Your task to perform on an android device: turn off improve location accuracy Image 0: 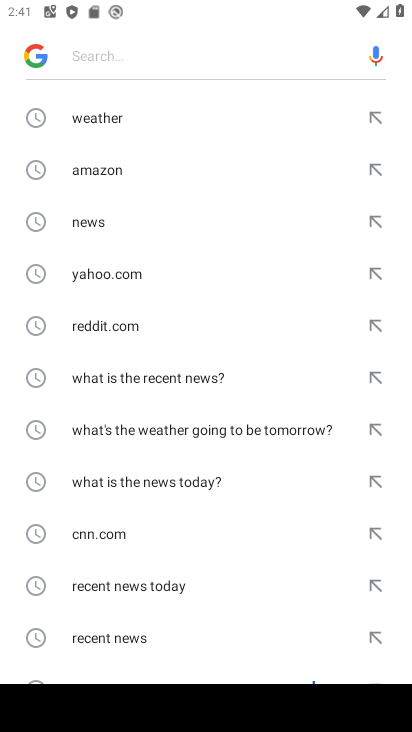
Step 0: press home button
Your task to perform on an android device: turn off improve location accuracy Image 1: 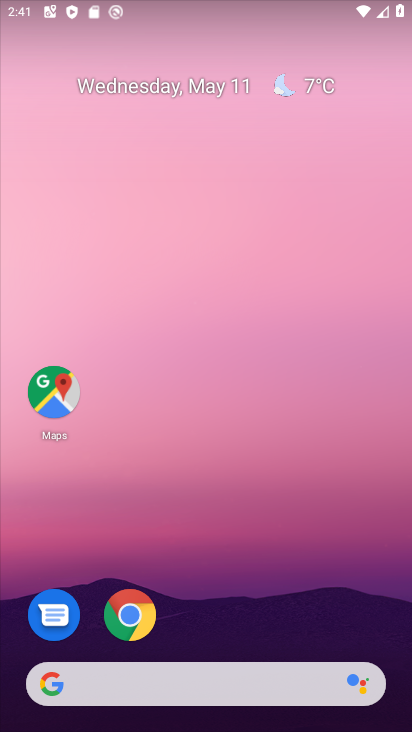
Step 1: drag from (270, 539) to (299, 89)
Your task to perform on an android device: turn off improve location accuracy Image 2: 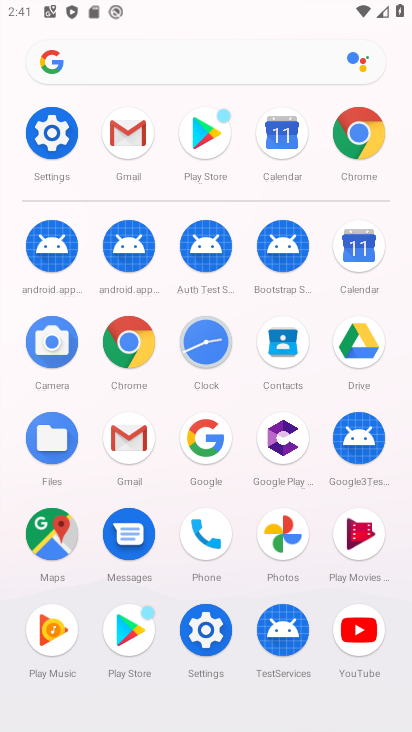
Step 2: click (34, 112)
Your task to perform on an android device: turn off improve location accuracy Image 3: 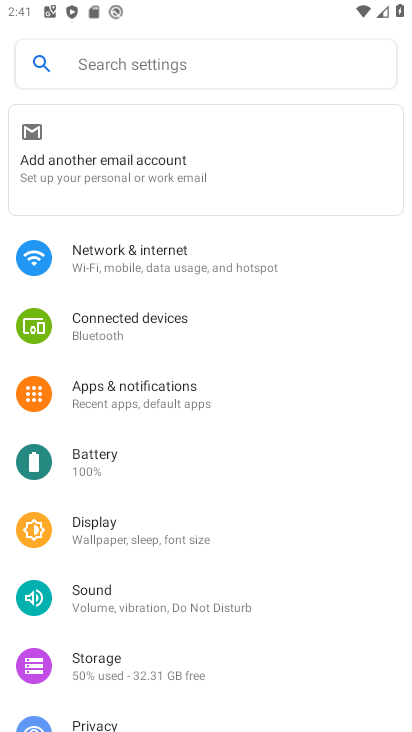
Step 3: drag from (118, 645) to (234, 225)
Your task to perform on an android device: turn off improve location accuracy Image 4: 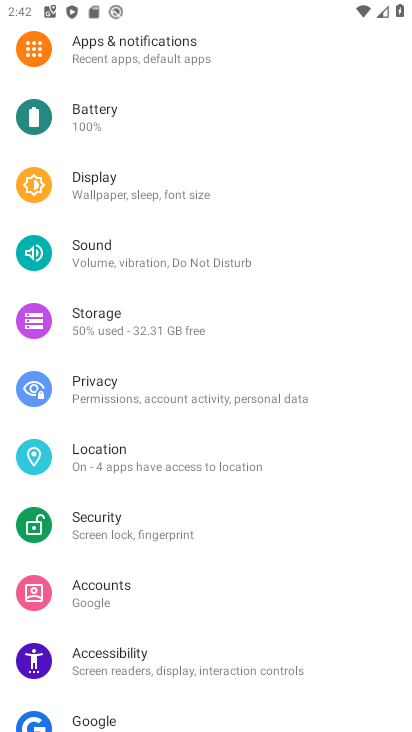
Step 4: click (79, 453)
Your task to perform on an android device: turn off improve location accuracy Image 5: 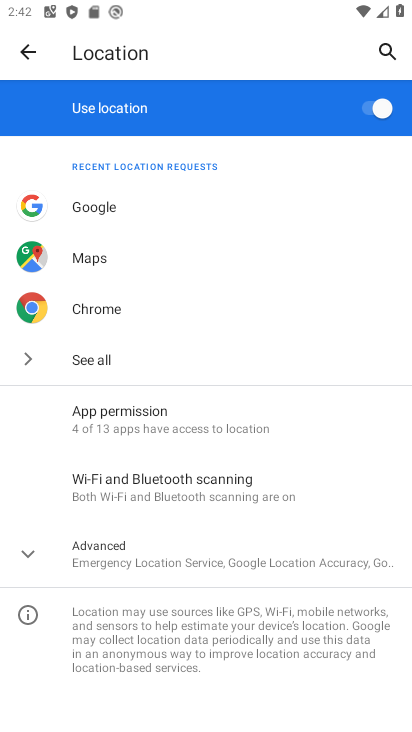
Step 5: click (132, 428)
Your task to perform on an android device: turn off improve location accuracy Image 6: 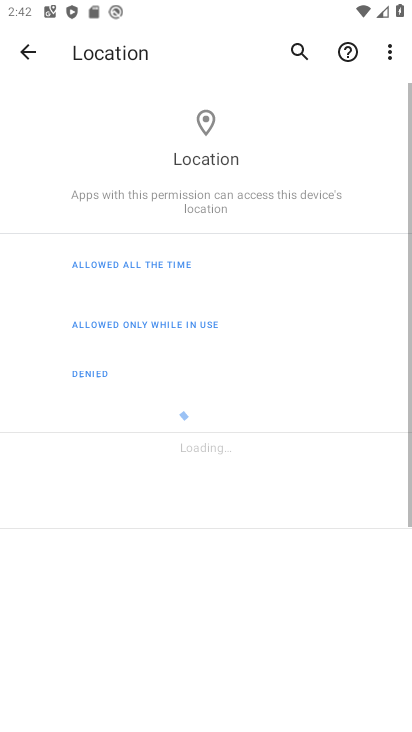
Step 6: click (26, 54)
Your task to perform on an android device: turn off improve location accuracy Image 7: 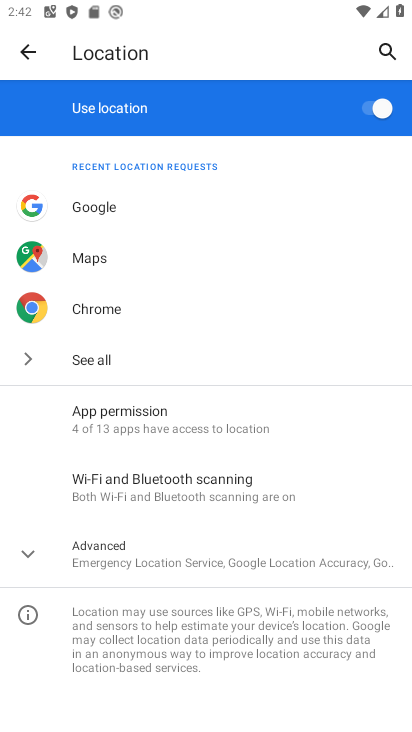
Step 7: click (116, 547)
Your task to perform on an android device: turn off improve location accuracy Image 8: 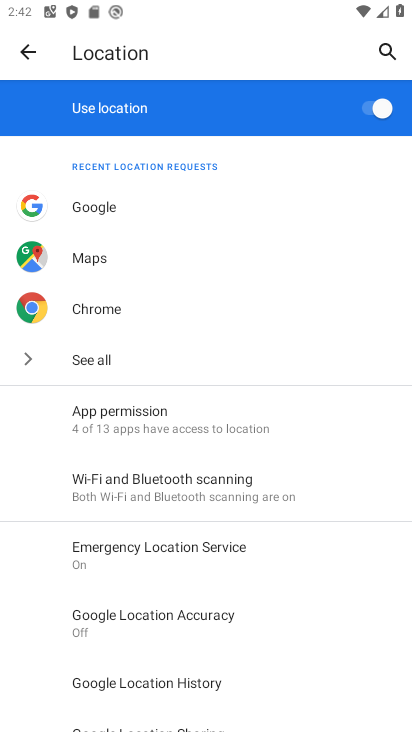
Step 8: click (207, 613)
Your task to perform on an android device: turn off improve location accuracy Image 9: 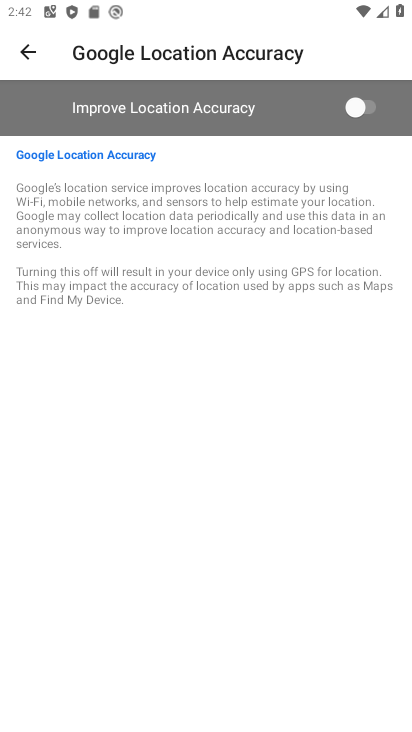
Step 9: task complete